Your task to perform on an android device: Look up the best rated coffee maker on Lowe's. Image 0: 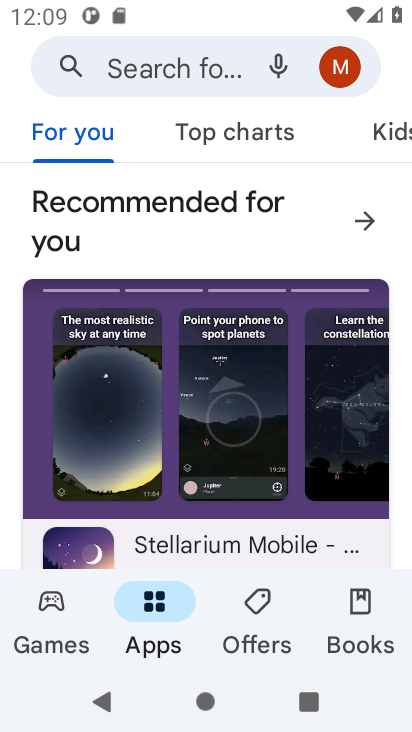
Step 0: press home button
Your task to perform on an android device: Look up the best rated coffee maker on Lowe's. Image 1: 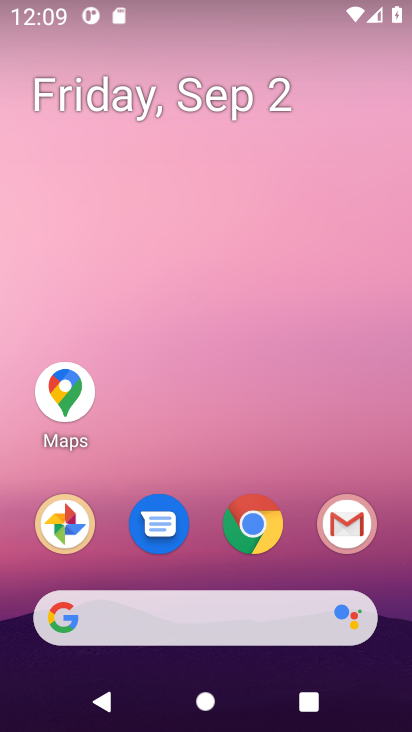
Step 1: click (269, 611)
Your task to perform on an android device: Look up the best rated coffee maker on Lowe's. Image 2: 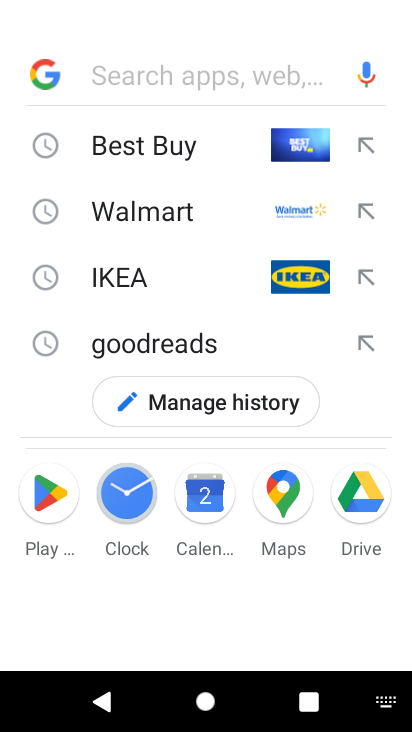
Step 2: press enter
Your task to perform on an android device: Look up the best rated coffee maker on Lowe's. Image 3: 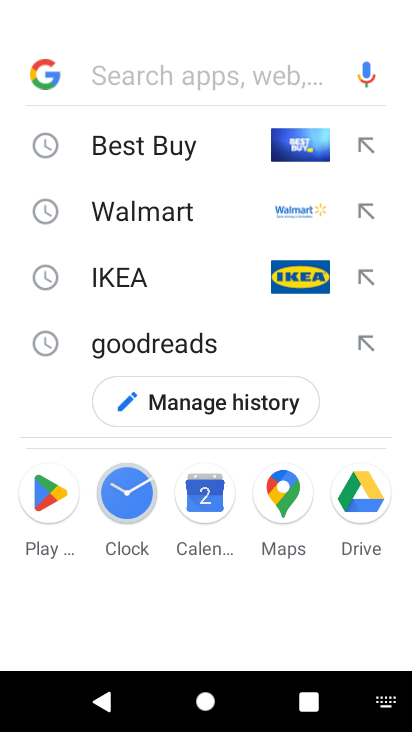
Step 3: type "lowes"
Your task to perform on an android device: Look up the best rated coffee maker on Lowe's. Image 4: 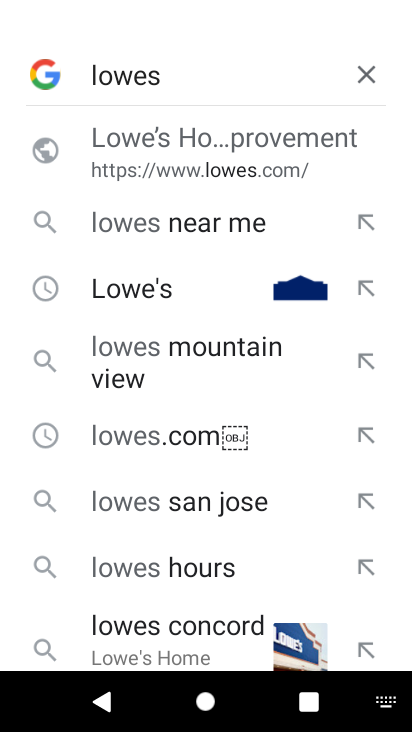
Step 4: click (275, 155)
Your task to perform on an android device: Look up the best rated coffee maker on Lowe's. Image 5: 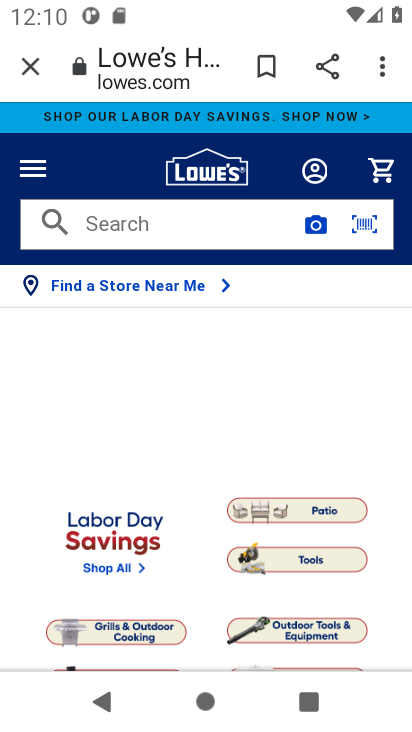
Step 5: click (186, 229)
Your task to perform on an android device: Look up the best rated coffee maker on Lowe's. Image 6: 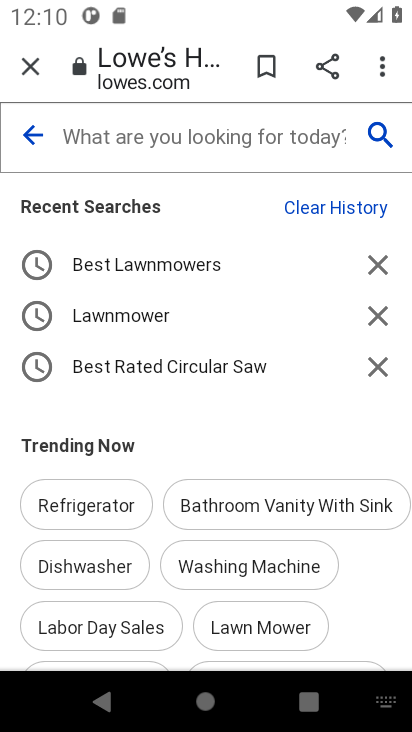
Step 6: press enter
Your task to perform on an android device: Look up the best rated coffee maker on Lowe's. Image 7: 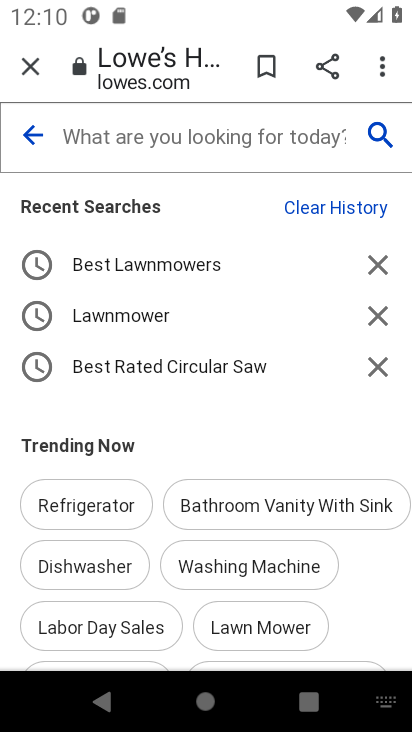
Step 7: type "best rated coffee maker"
Your task to perform on an android device: Look up the best rated coffee maker on Lowe's. Image 8: 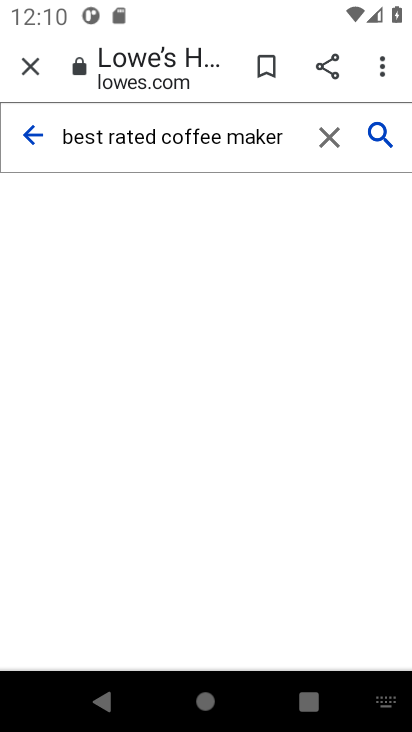
Step 8: click (382, 132)
Your task to perform on an android device: Look up the best rated coffee maker on Lowe's. Image 9: 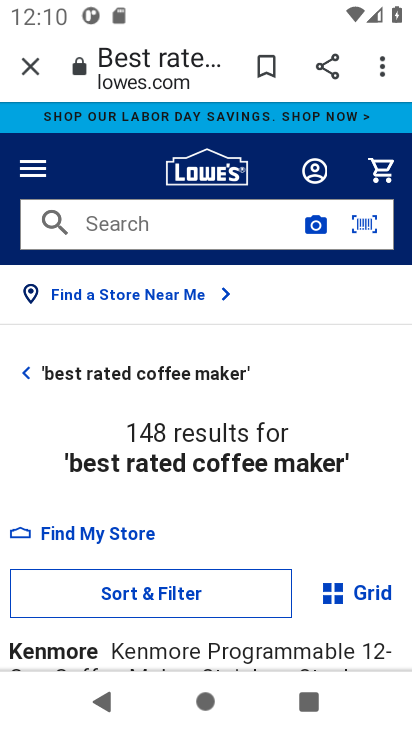
Step 9: task complete